Your task to perform on an android device: turn off improve location accuracy Image 0: 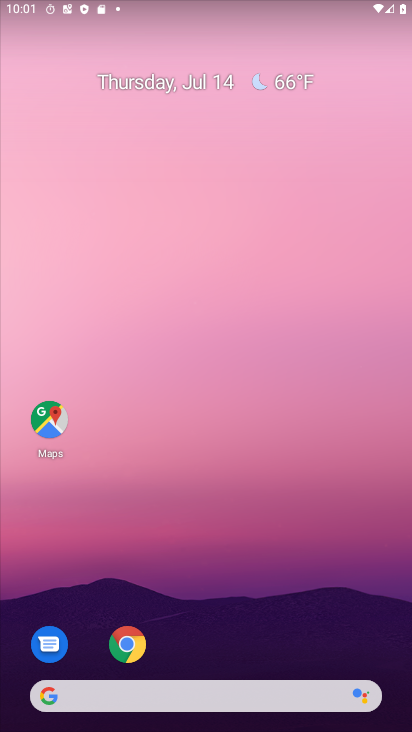
Step 0: drag from (260, 700) to (277, 126)
Your task to perform on an android device: turn off improve location accuracy Image 1: 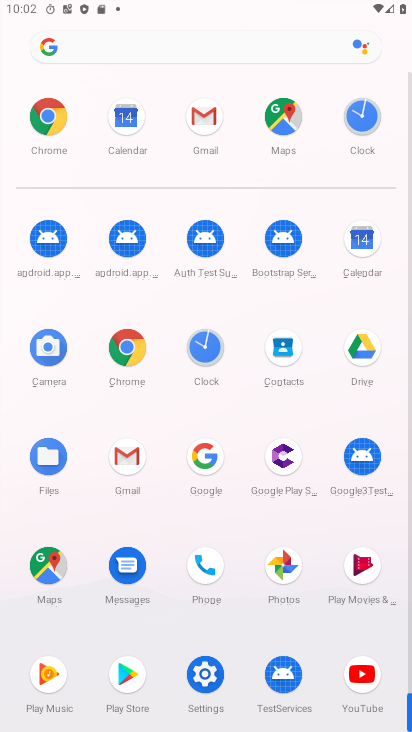
Step 1: click (206, 670)
Your task to perform on an android device: turn off improve location accuracy Image 2: 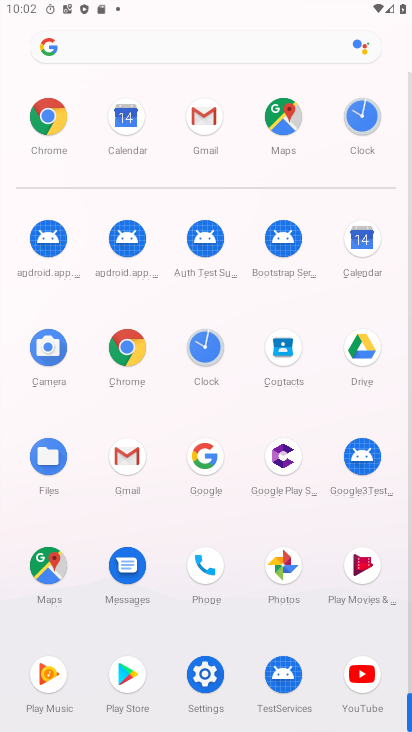
Step 2: click (206, 670)
Your task to perform on an android device: turn off improve location accuracy Image 3: 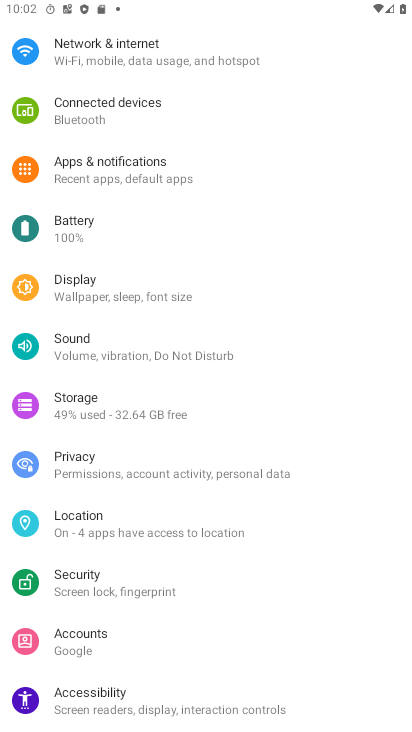
Step 3: click (100, 516)
Your task to perform on an android device: turn off improve location accuracy Image 4: 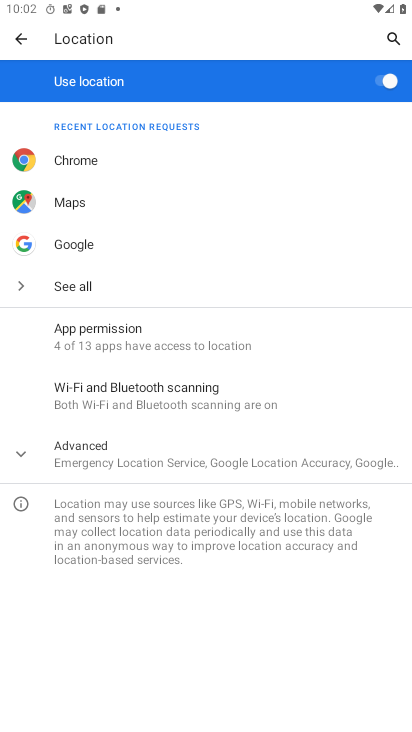
Step 4: click (109, 457)
Your task to perform on an android device: turn off improve location accuracy Image 5: 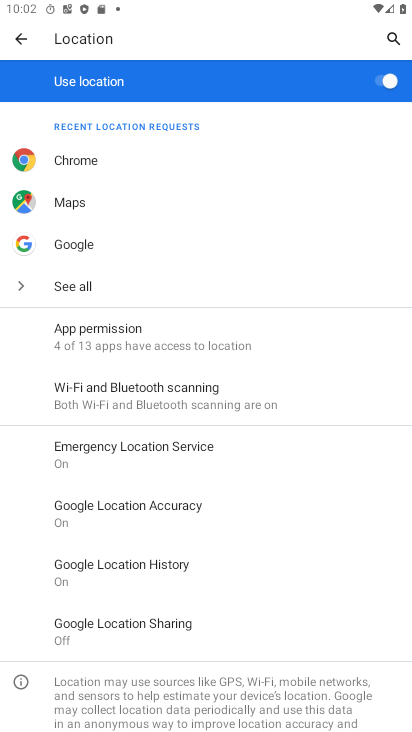
Step 5: click (156, 516)
Your task to perform on an android device: turn off improve location accuracy Image 6: 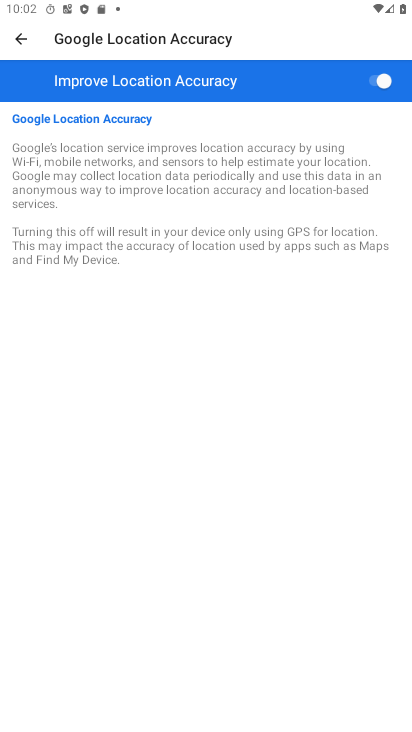
Step 6: task complete